Your task to perform on an android device: turn off javascript in the chrome app Image 0: 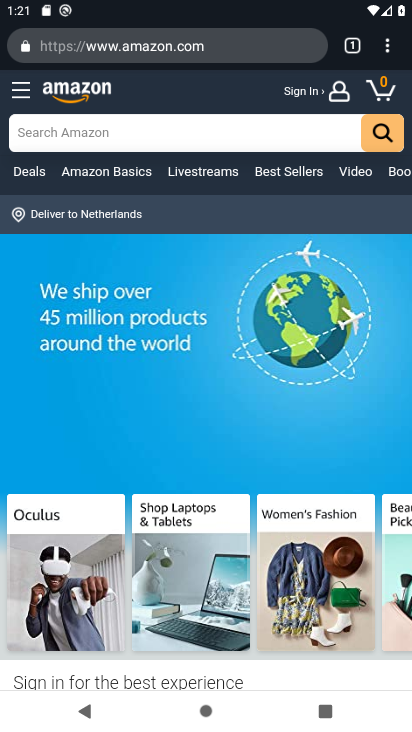
Step 0: press home button
Your task to perform on an android device: turn off javascript in the chrome app Image 1: 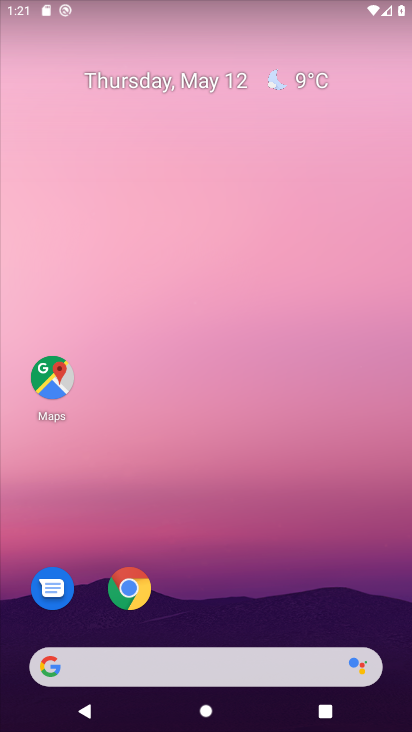
Step 1: drag from (269, 501) to (220, 3)
Your task to perform on an android device: turn off javascript in the chrome app Image 2: 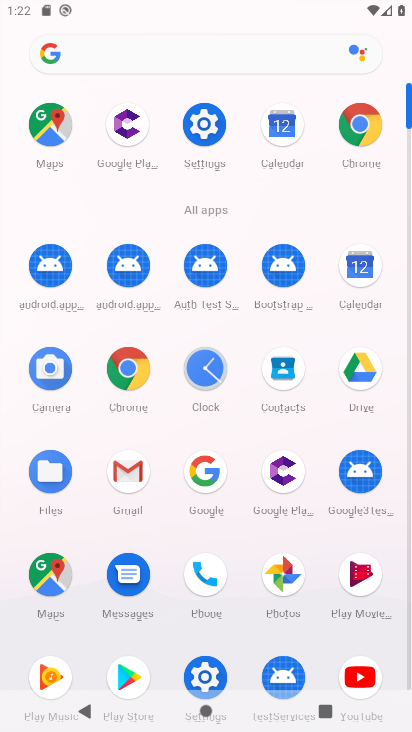
Step 2: click (360, 142)
Your task to perform on an android device: turn off javascript in the chrome app Image 3: 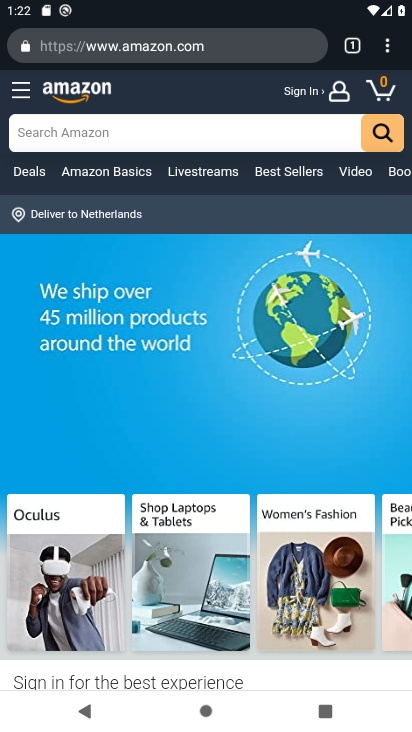
Step 3: drag from (389, 45) to (233, 551)
Your task to perform on an android device: turn off javascript in the chrome app Image 4: 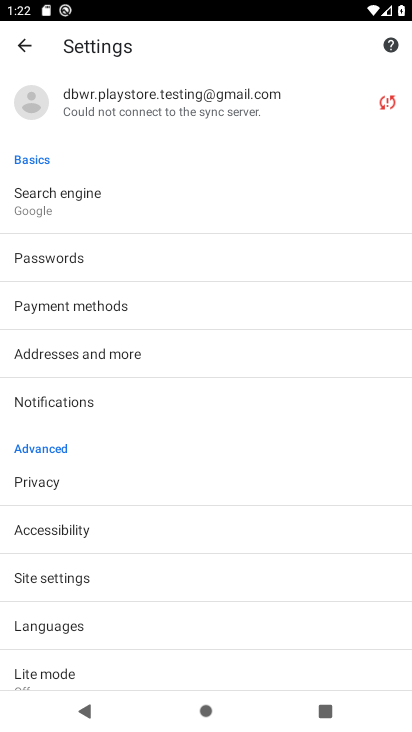
Step 4: click (88, 569)
Your task to perform on an android device: turn off javascript in the chrome app Image 5: 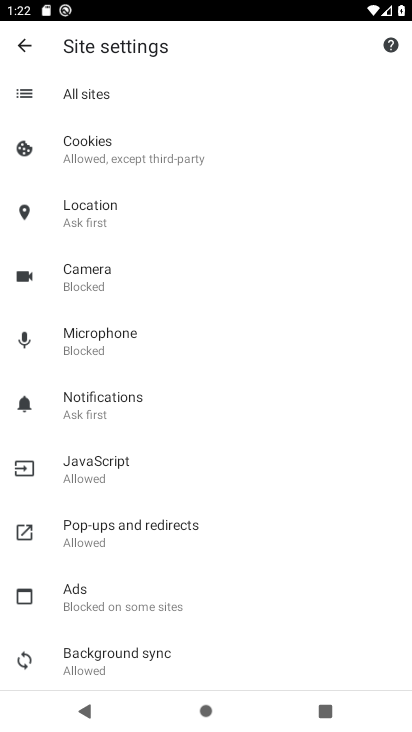
Step 5: click (70, 460)
Your task to perform on an android device: turn off javascript in the chrome app Image 6: 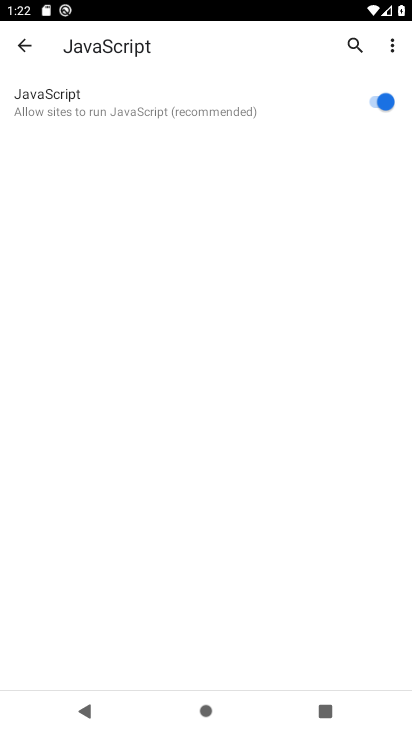
Step 6: click (368, 104)
Your task to perform on an android device: turn off javascript in the chrome app Image 7: 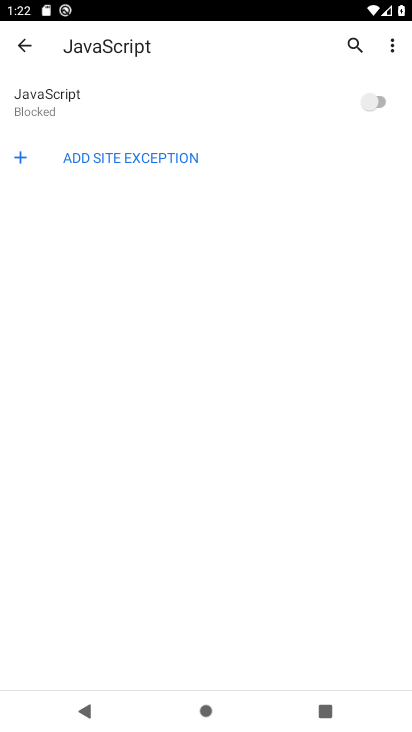
Step 7: task complete